Your task to perform on an android device: turn vacation reply on in the gmail app Image 0: 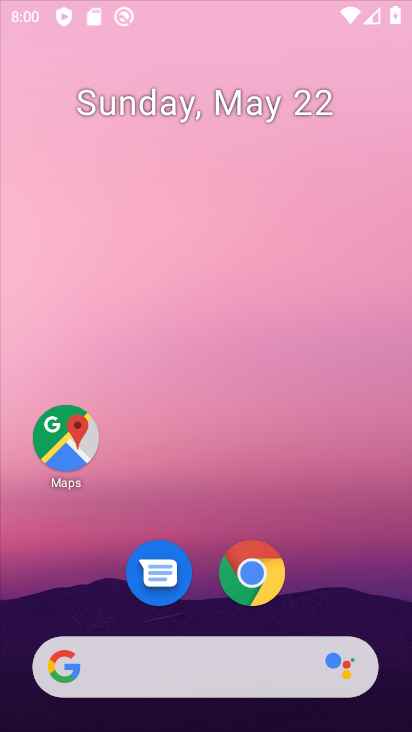
Step 0: drag from (224, 499) to (276, 1)
Your task to perform on an android device: turn vacation reply on in the gmail app Image 1: 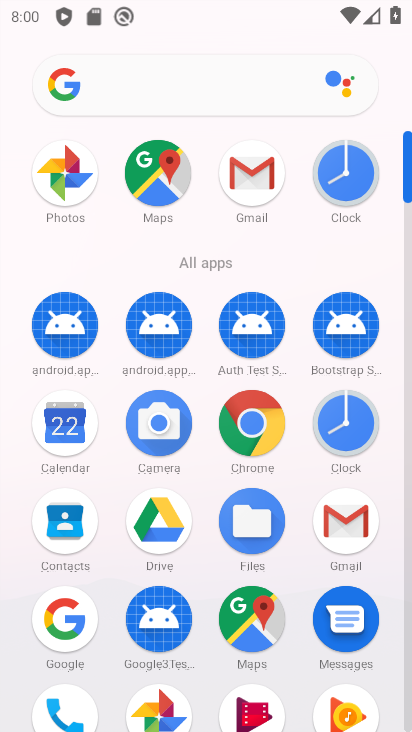
Step 1: click (350, 523)
Your task to perform on an android device: turn vacation reply on in the gmail app Image 2: 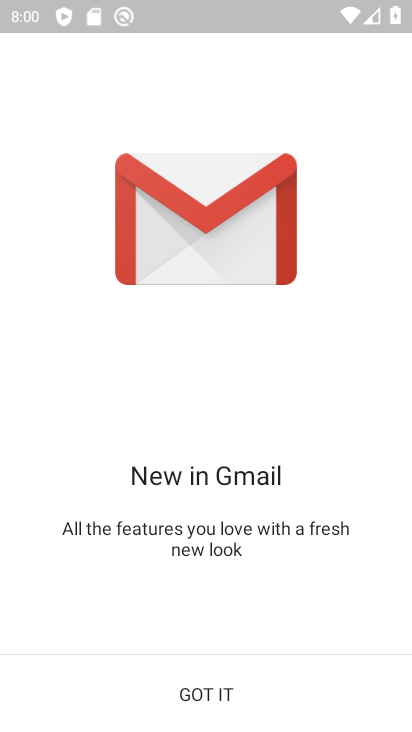
Step 2: click (212, 681)
Your task to perform on an android device: turn vacation reply on in the gmail app Image 3: 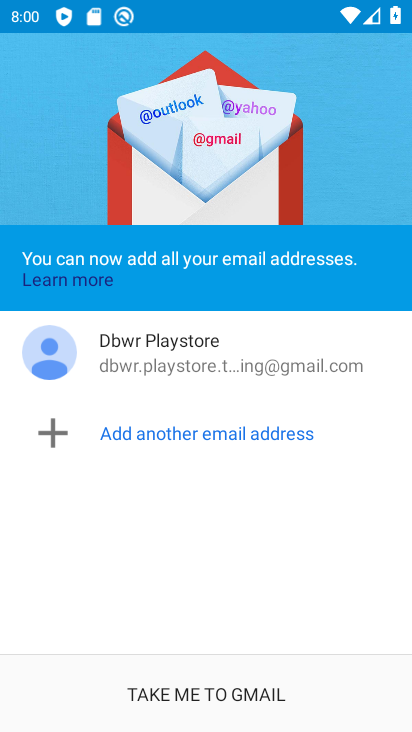
Step 3: click (173, 706)
Your task to perform on an android device: turn vacation reply on in the gmail app Image 4: 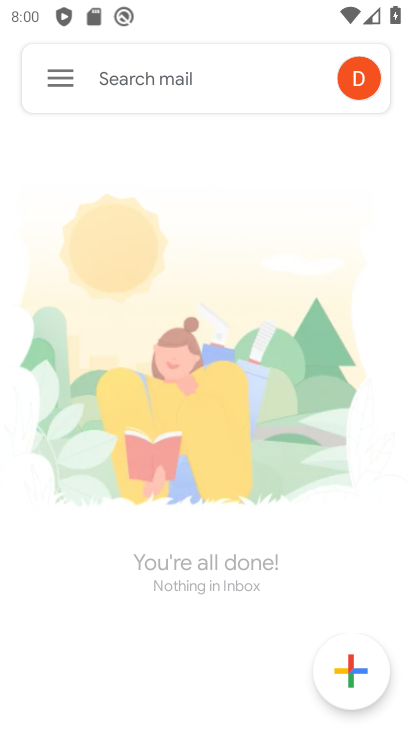
Step 4: drag from (256, 501) to (285, 119)
Your task to perform on an android device: turn vacation reply on in the gmail app Image 5: 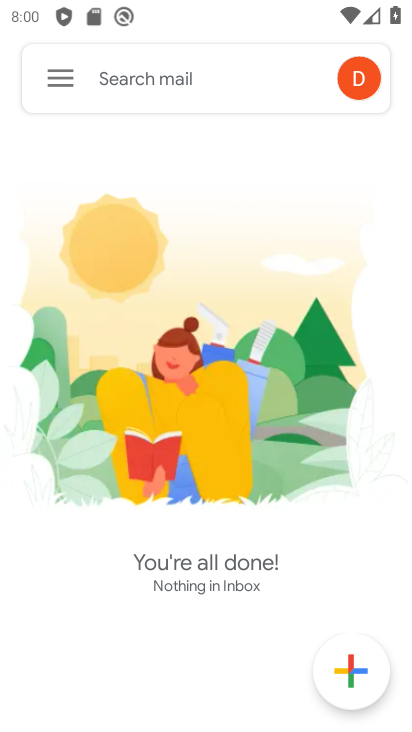
Step 5: click (65, 64)
Your task to perform on an android device: turn vacation reply on in the gmail app Image 6: 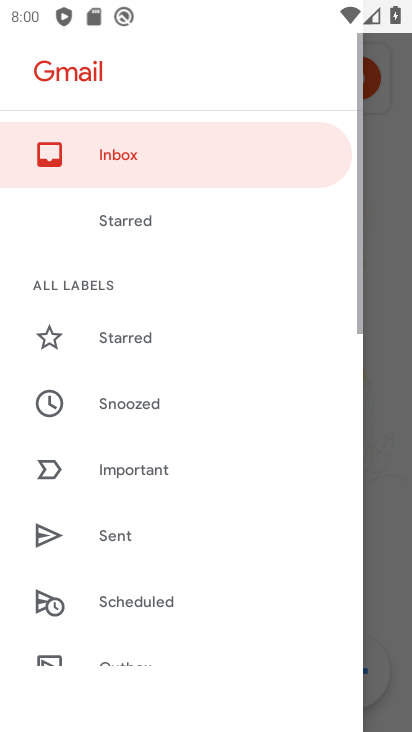
Step 6: drag from (115, 545) to (339, 18)
Your task to perform on an android device: turn vacation reply on in the gmail app Image 7: 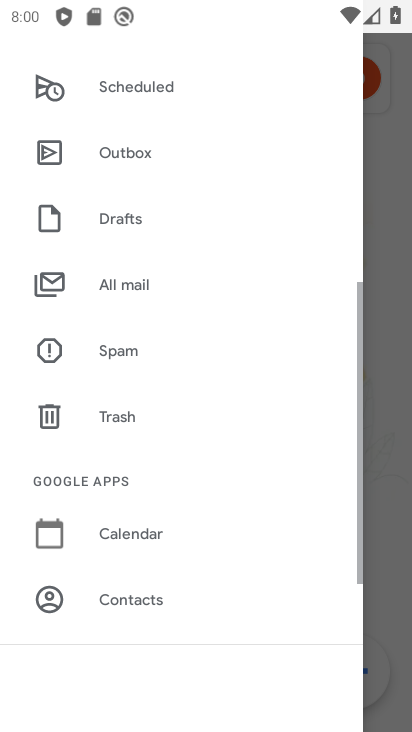
Step 7: drag from (149, 577) to (235, 59)
Your task to perform on an android device: turn vacation reply on in the gmail app Image 8: 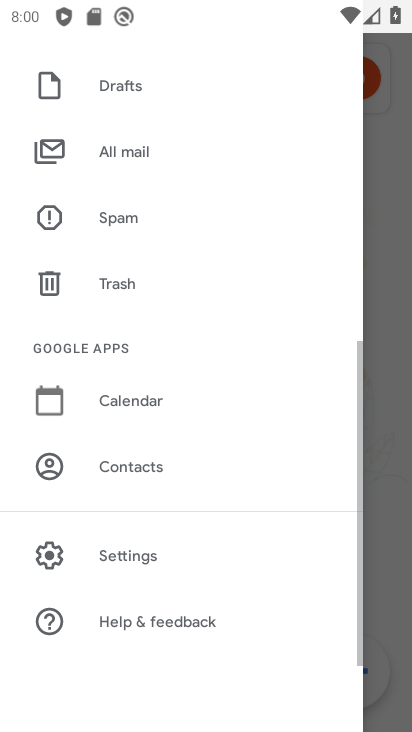
Step 8: click (148, 546)
Your task to perform on an android device: turn vacation reply on in the gmail app Image 9: 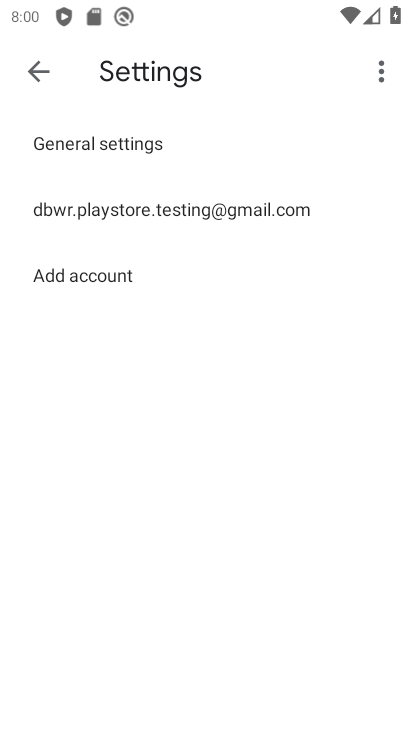
Step 9: drag from (145, 544) to (230, 111)
Your task to perform on an android device: turn vacation reply on in the gmail app Image 10: 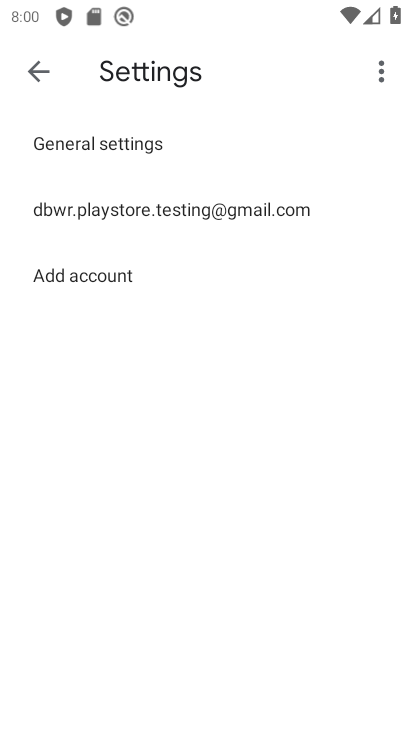
Step 10: click (122, 208)
Your task to perform on an android device: turn vacation reply on in the gmail app Image 11: 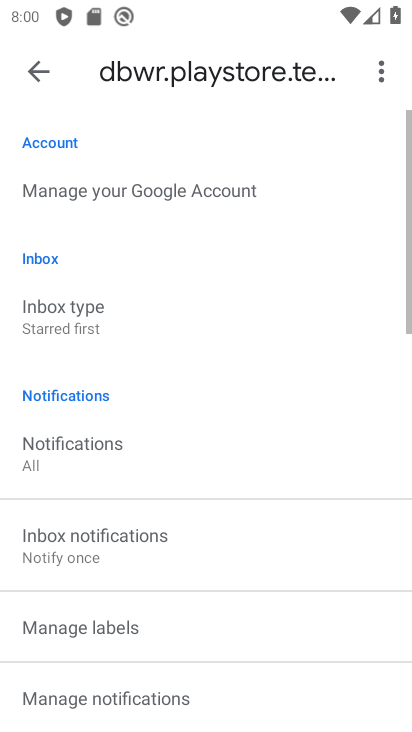
Step 11: drag from (209, 565) to (248, 122)
Your task to perform on an android device: turn vacation reply on in the gmail app Image 12: 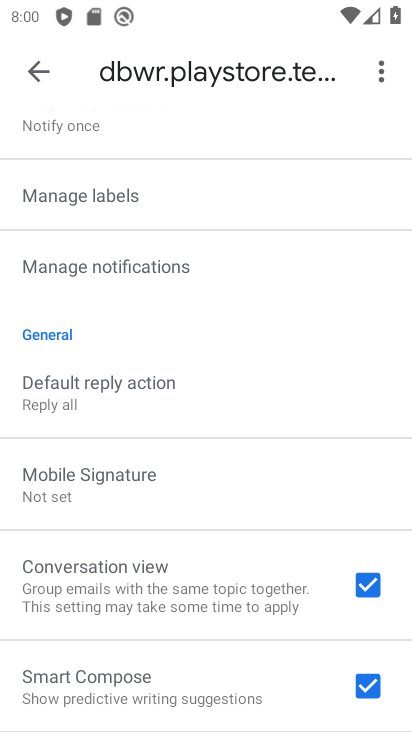
Step 12: drag from (200, 521) to (283, 174)
Your task to perform on an android device: turn vacation reply on in the gmail app Image 13: 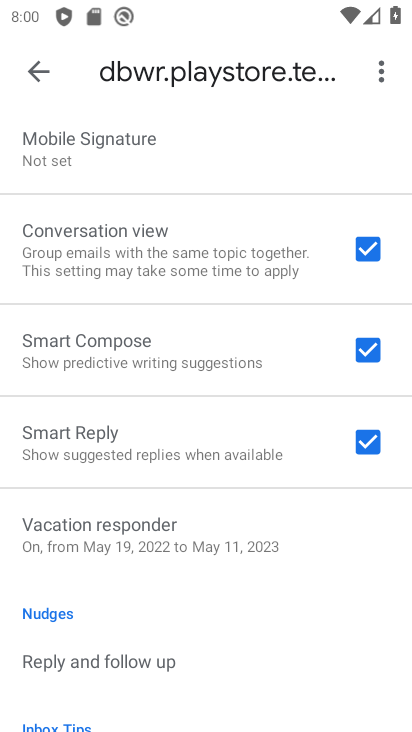
Step 13: click (188, 539)
Your task to perform on an android device: turn vacation reply on in the gmail app Image 14: 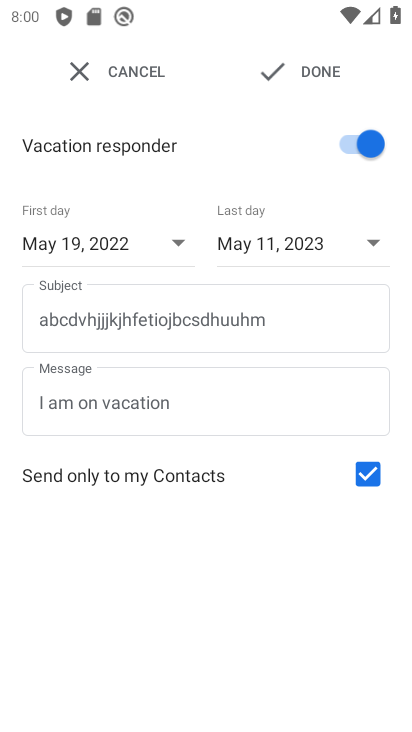
Step 14: click (317, 72)
Your task to perform on an android device: turn vacation reply on in the gmail app Image 15: 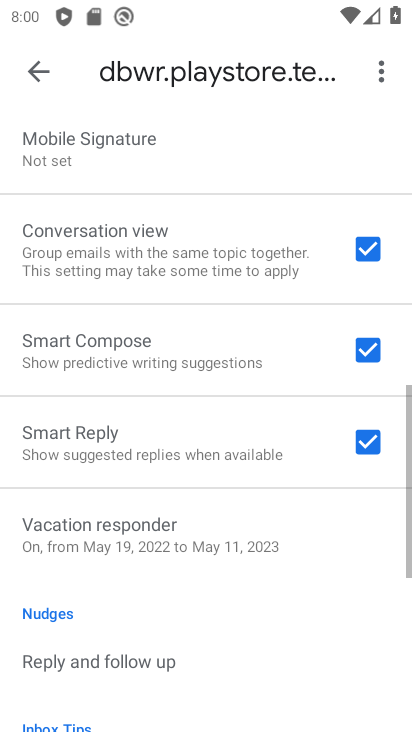
Step 15: task complete